Your task to perform on an android device: Search for lg ultragear on amazon, select the first entry, and add it to the cart. Image 0: 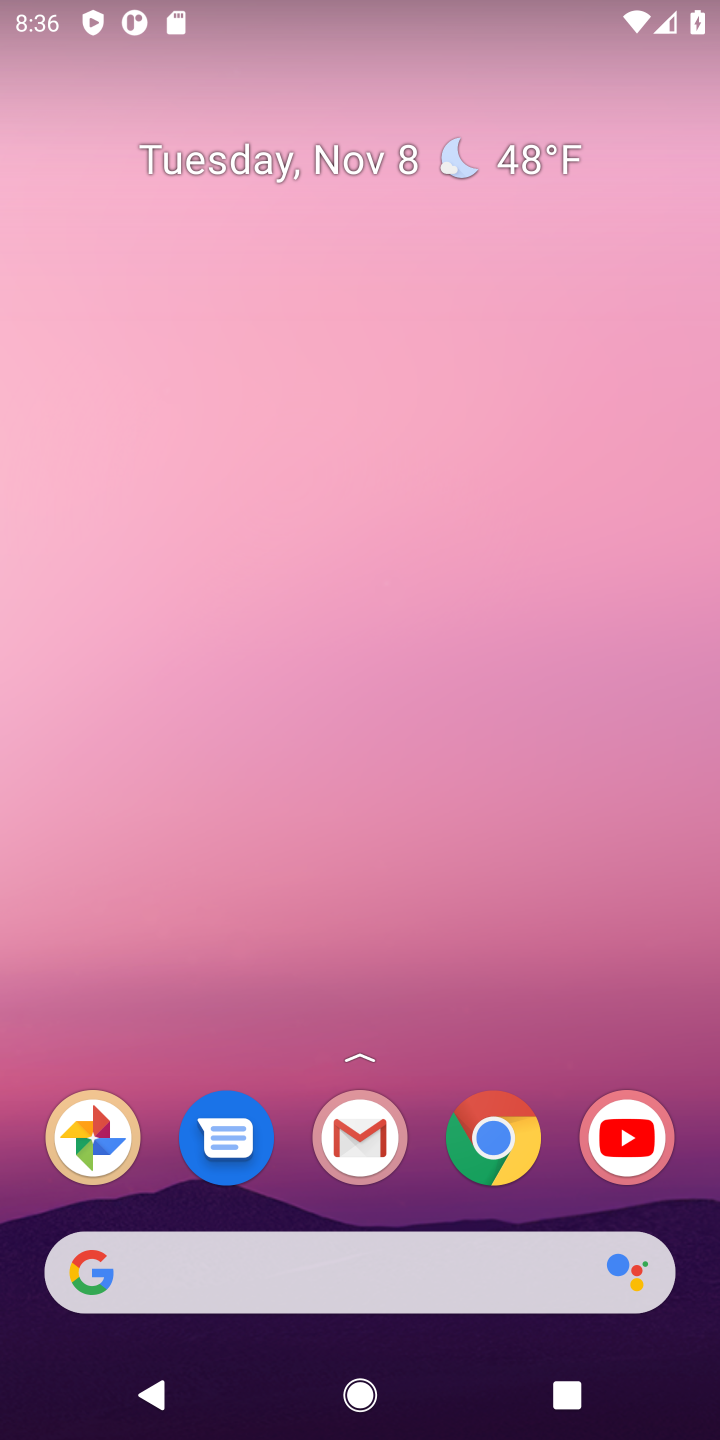
Step 0: press home button
Your task to perform on an android device: Search for lg ultragear on amazon, select the first entry, and add it to the cart. Image 1: 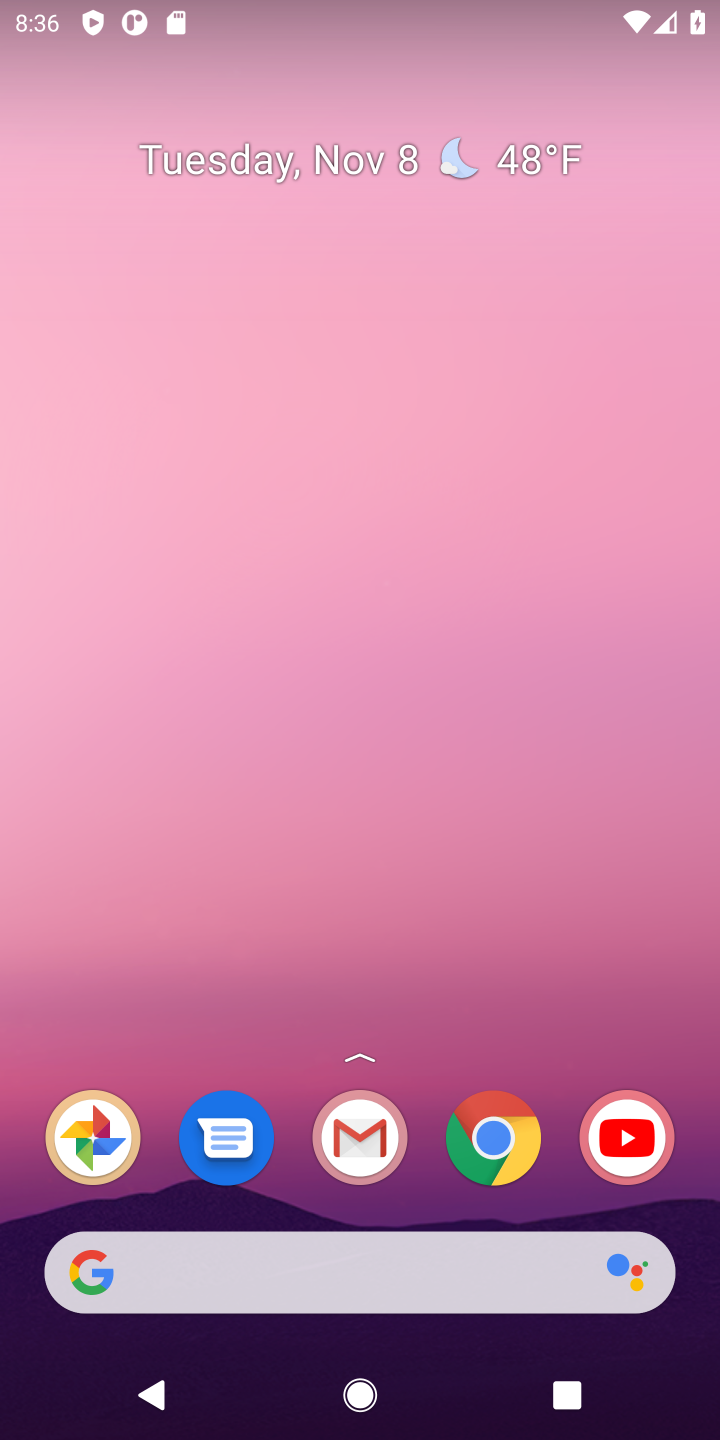
Step 1: click (492, 1126)
Your task to perform on an android device: Search for lg ultragear on amazon, select the first entry, and add it to the cart. Image 2: 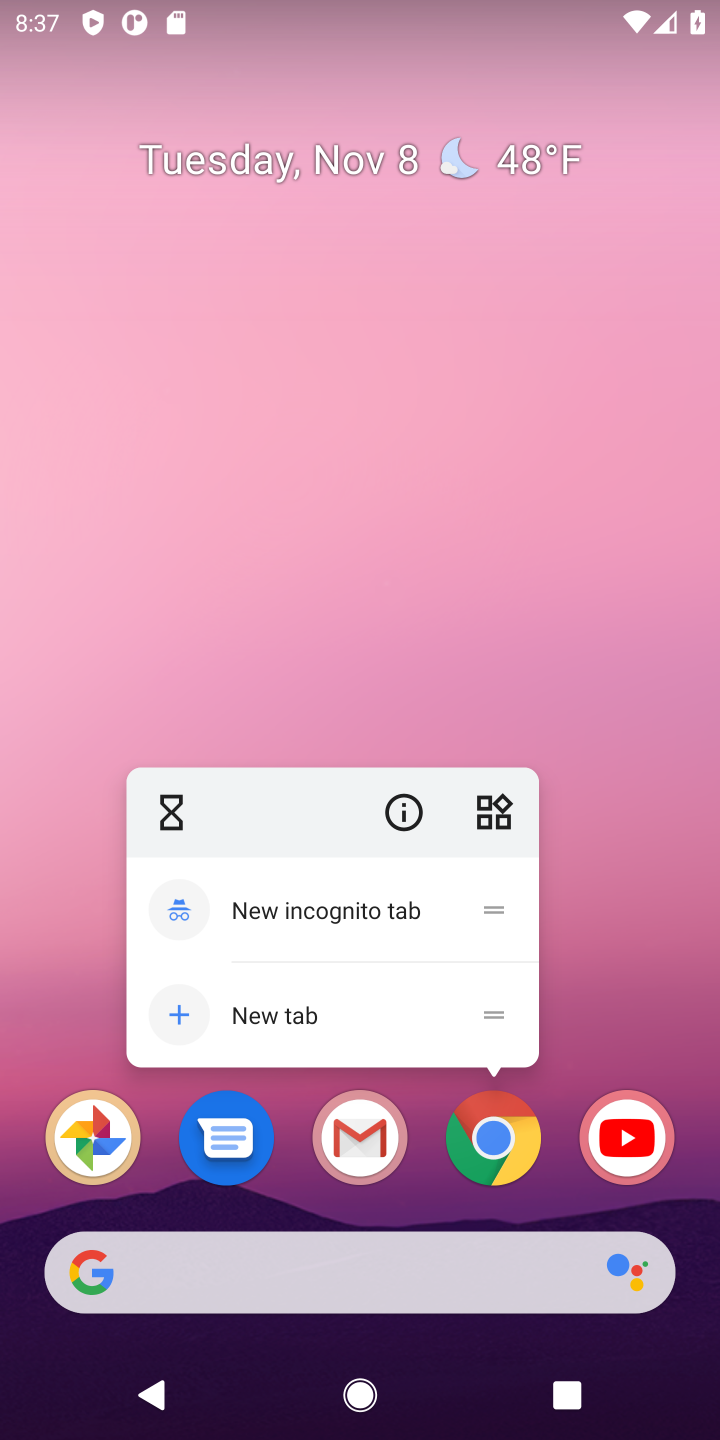
Step 2: click (492, 1126)
Your task to perform on an android device: Search for lg ultragear on amazon, select the first entry, and add it to the cart. Image 3: 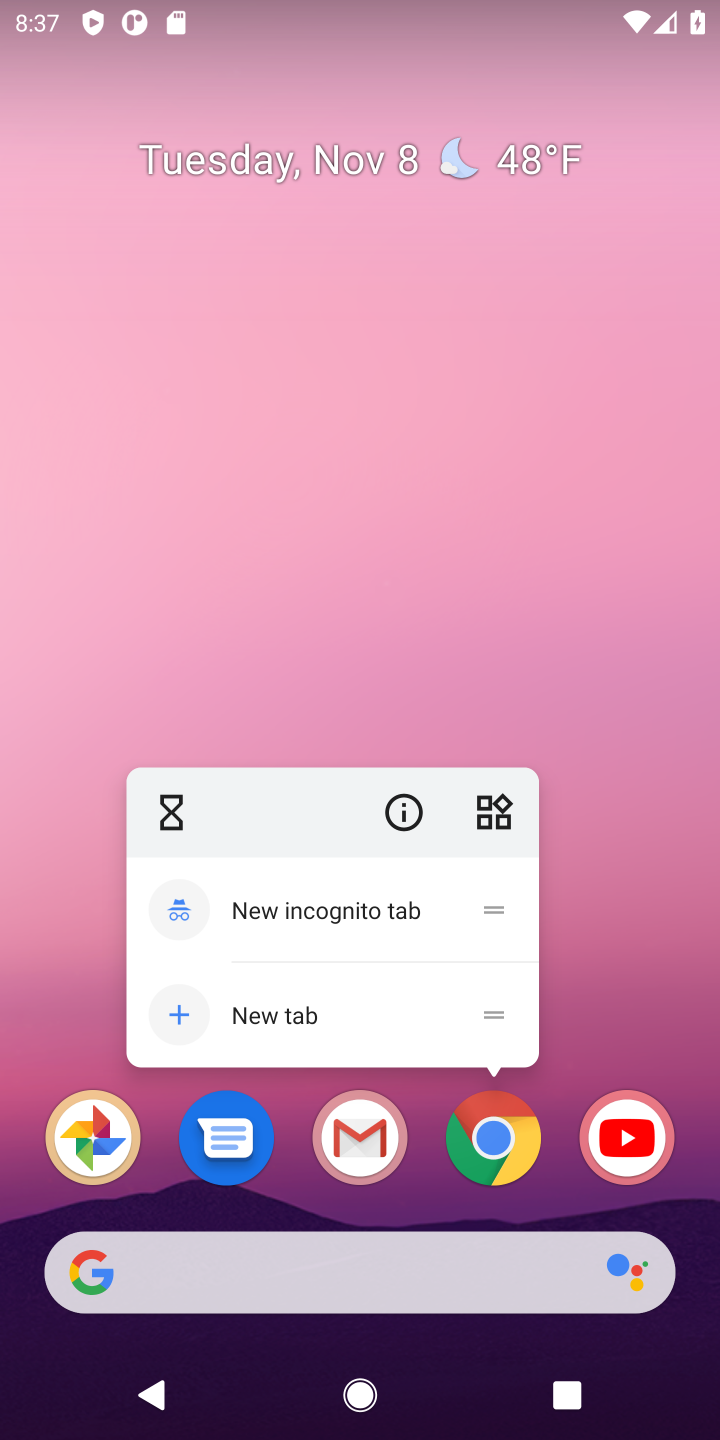
Step 3: click (492, 1120)
Your task to perform on an android device: Search for lg ultragear on amazon, select the first entry, and add it to the cart. Image 4: 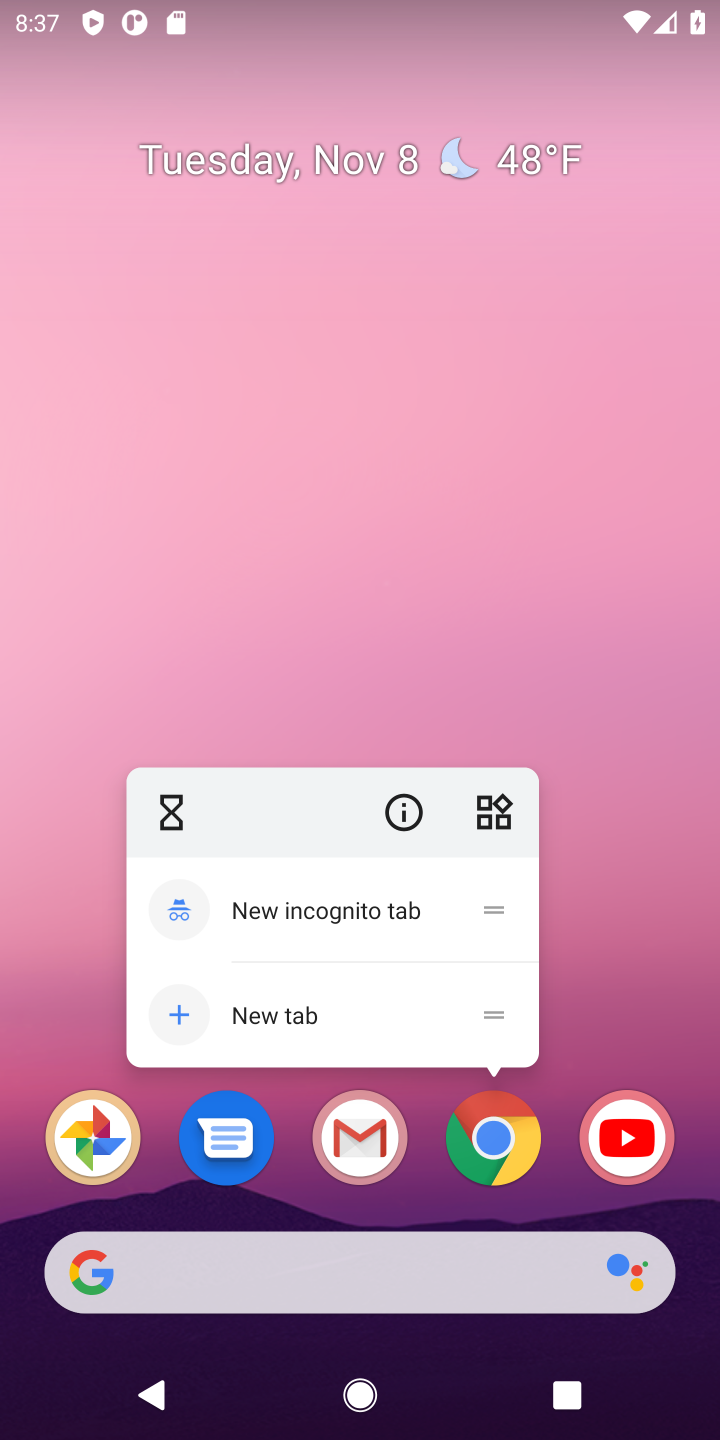
Step 4: click (490, 1133)
Your task to perform on an android device: Search for lg ultragear on amazon, select the first entry, and add it to the cart. Image 5: 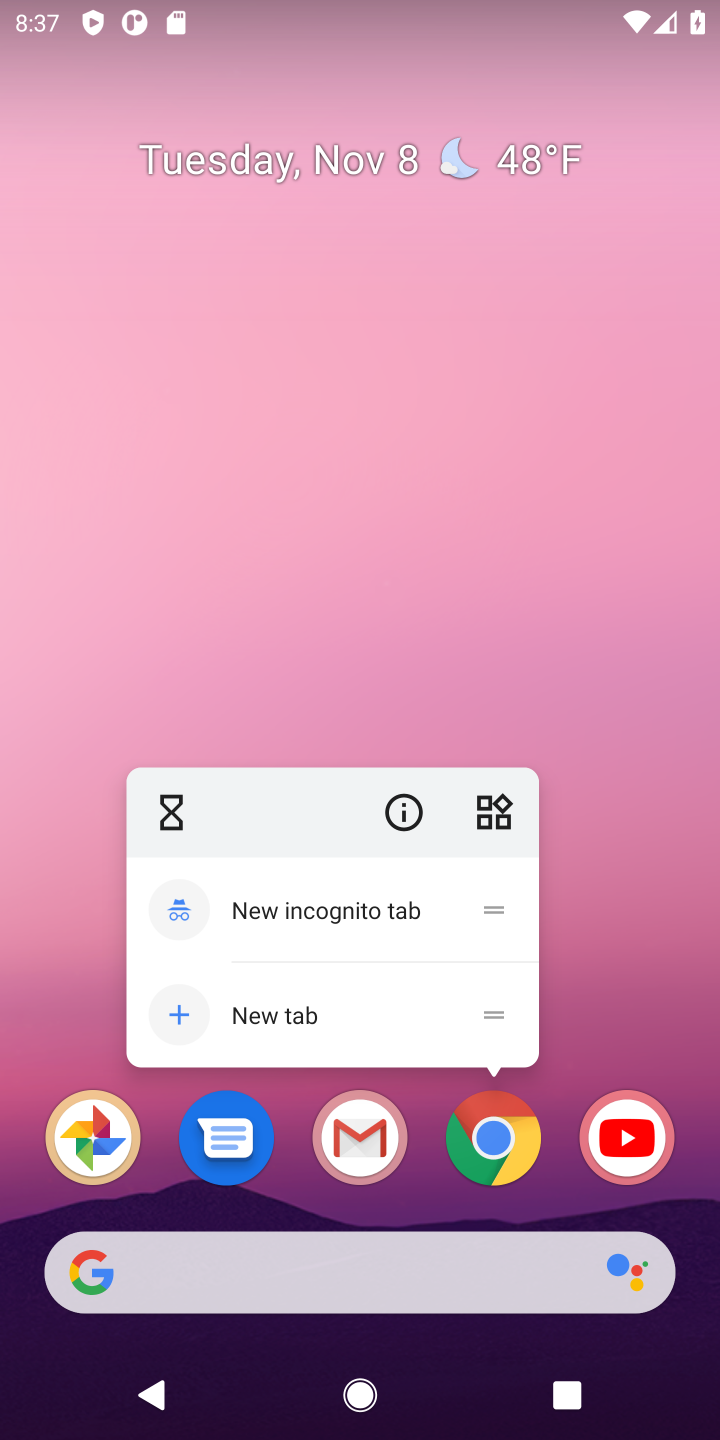
Step 5: click (490, 1138)
Your task to perform on an android device: Search for lg ultragear on amazon, select the first entry, and add it to the cart. Image 6: 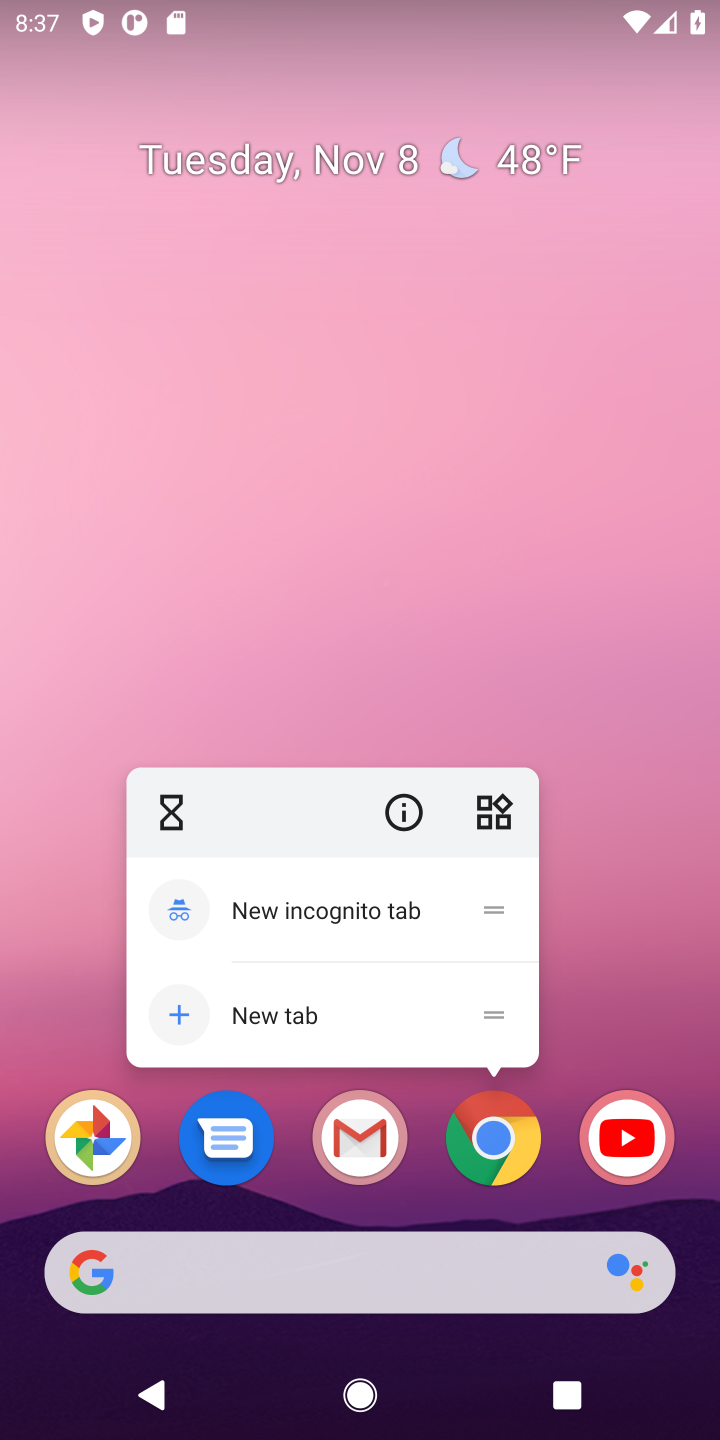
Step 6: click (490, 1148)
Your task to perform on an android device: Search for lg ultragear on amazon, select the first entry, and add it to the cart. Image 7: 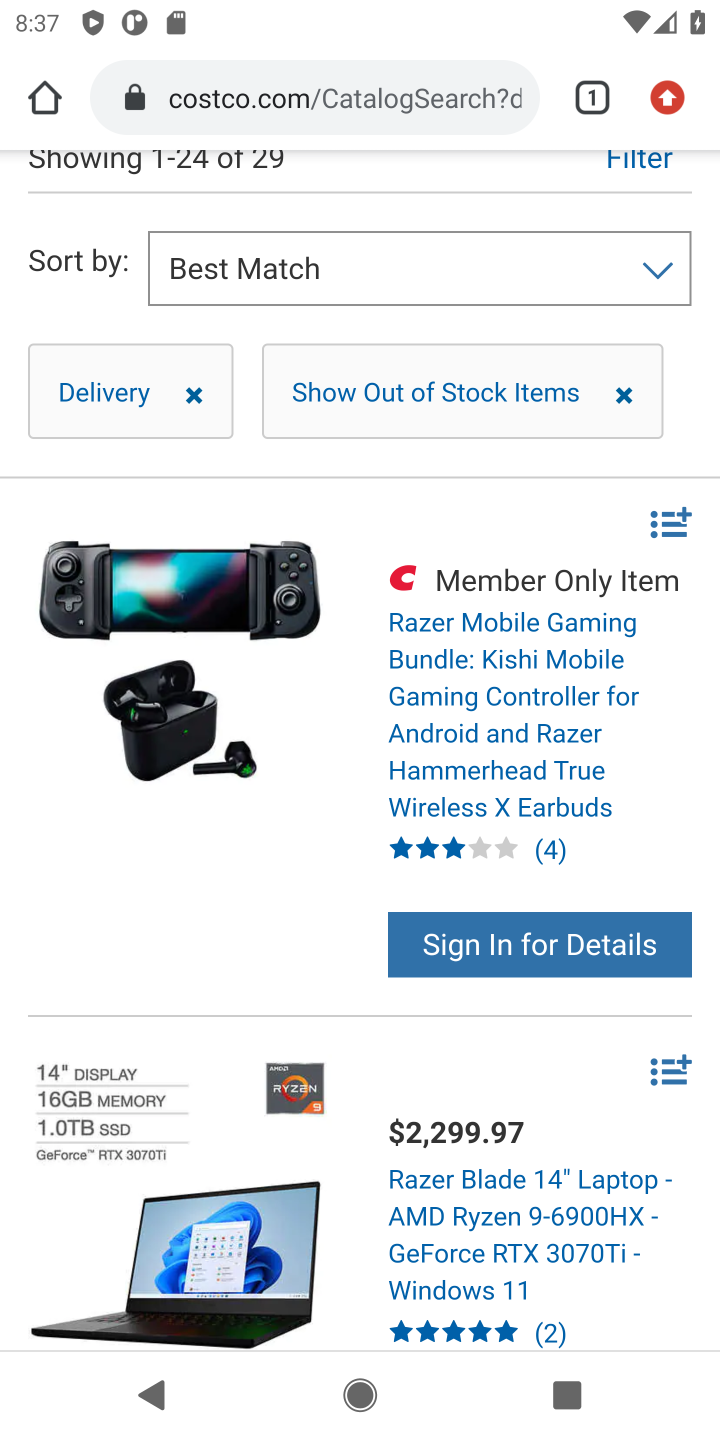
Step 7: click (353, 85)
Your task to perform on an android device: Search for lg ultragear on amazon, select the first entry, and add it to the cart. Image 8: 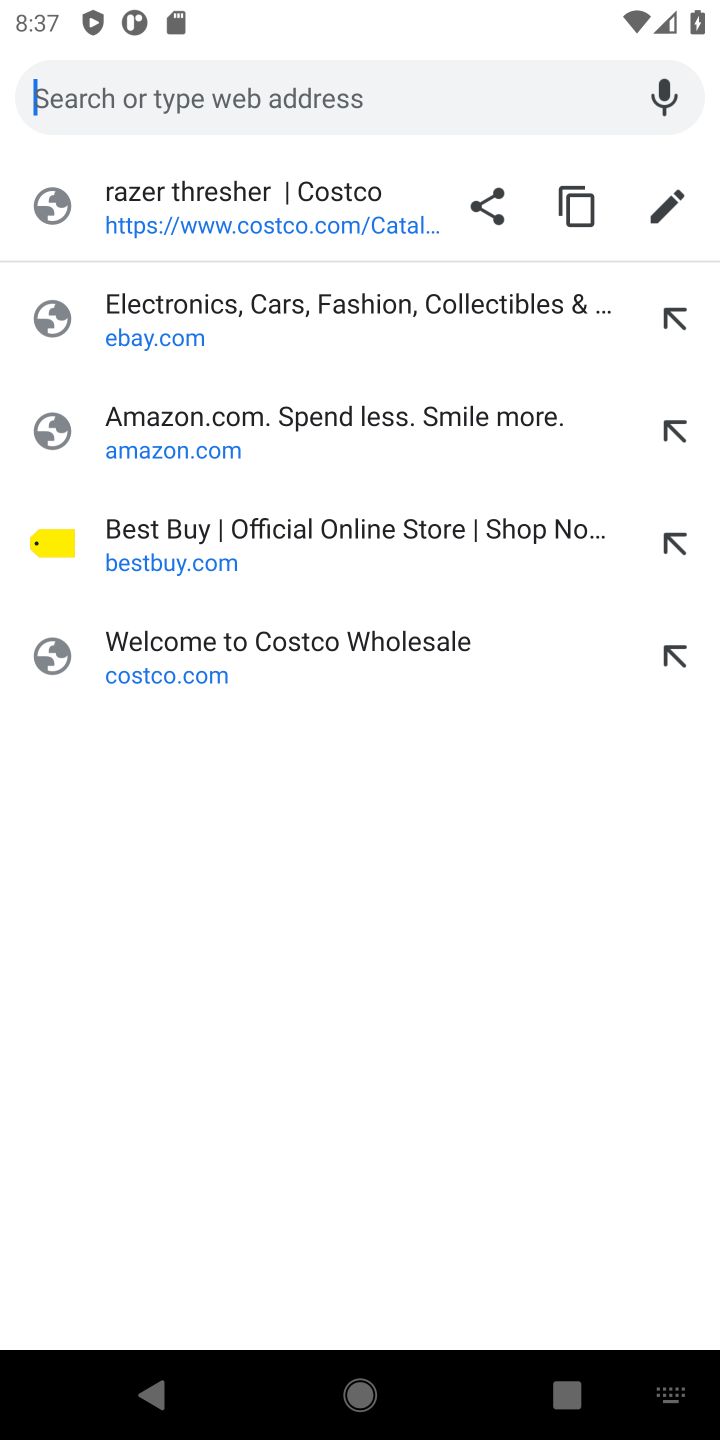
Step 8: click (153, 448)
Your task to perform on an android device: Search for lg ultragear on amazon, select the first entry, and add it to the cart. Image 9: 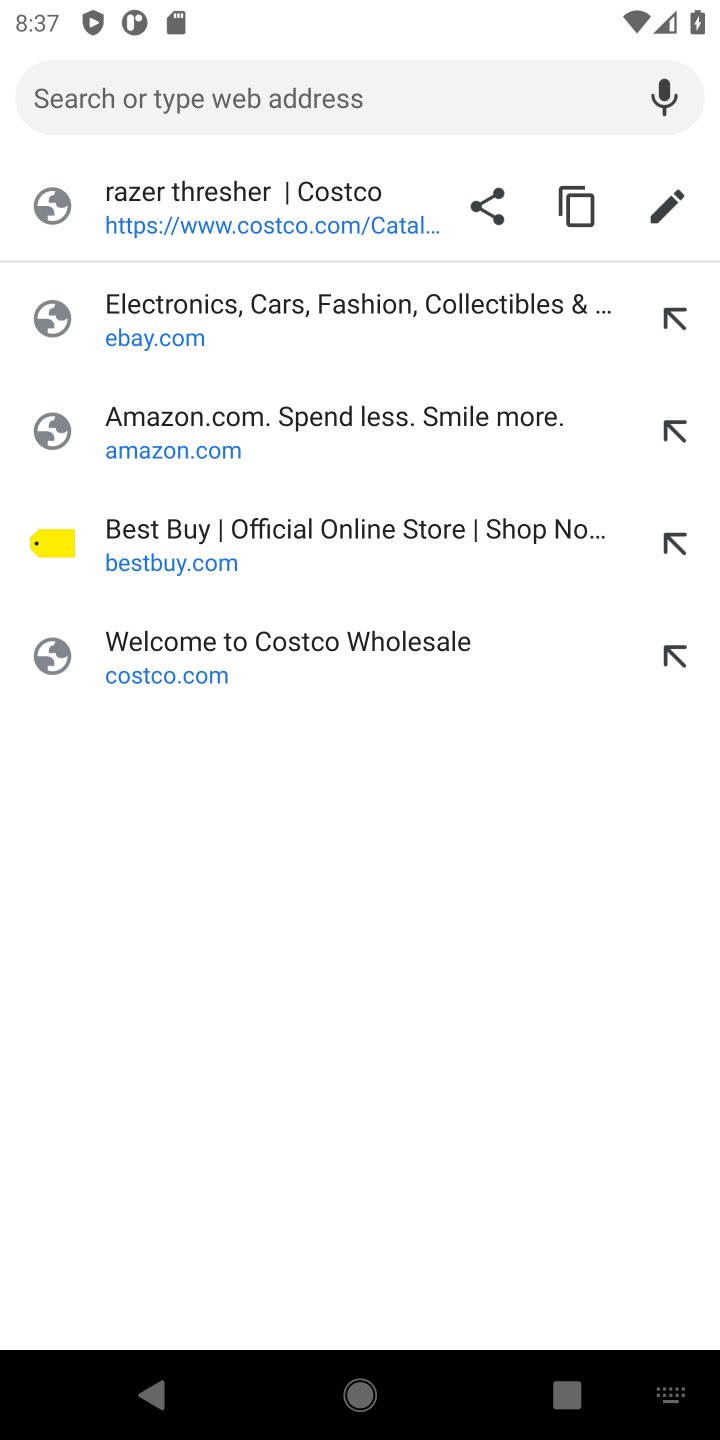
Step 9: click (157, 437)
Your task to perform on an android device: Search for lg ultragear on amazon, select the first entry, and add it to the cart. Image 10: 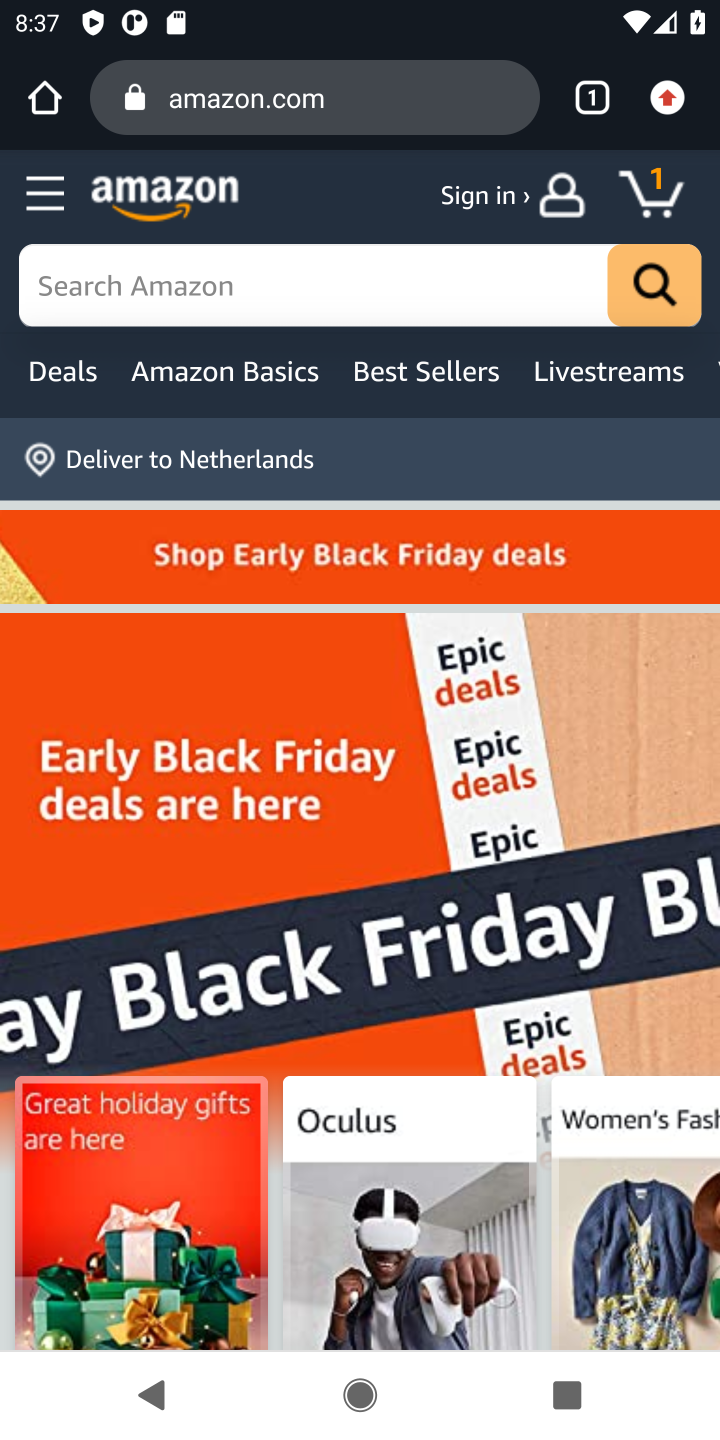
Step 10: click (201, 284)
Your task to perform on an android device: Search for lg ultragear on amazon, select the first entry, and add it to the cart. Image 11: 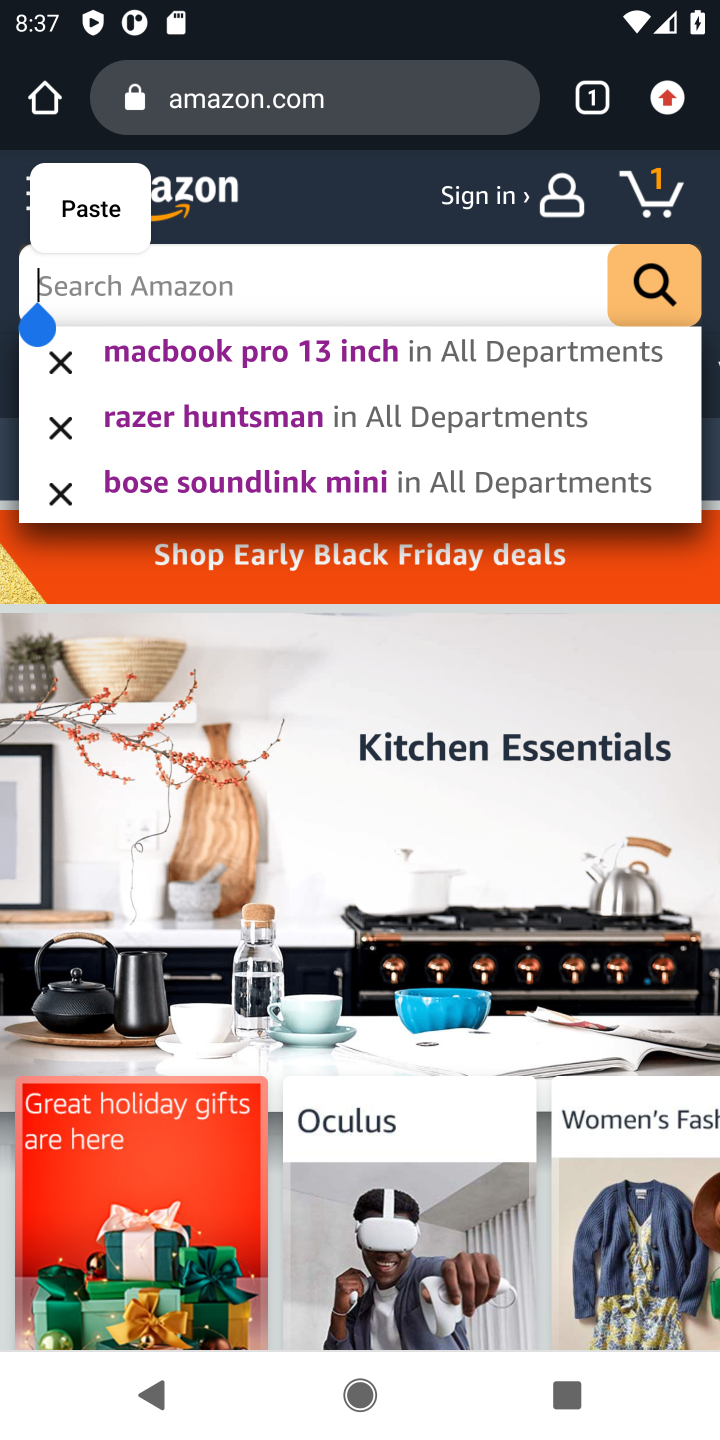
Step 11: type "lg ultragear"
Your task to perform on an android device: Search for lg ultragear on amazon, select the first entry, and add it to the cart. Image 12: 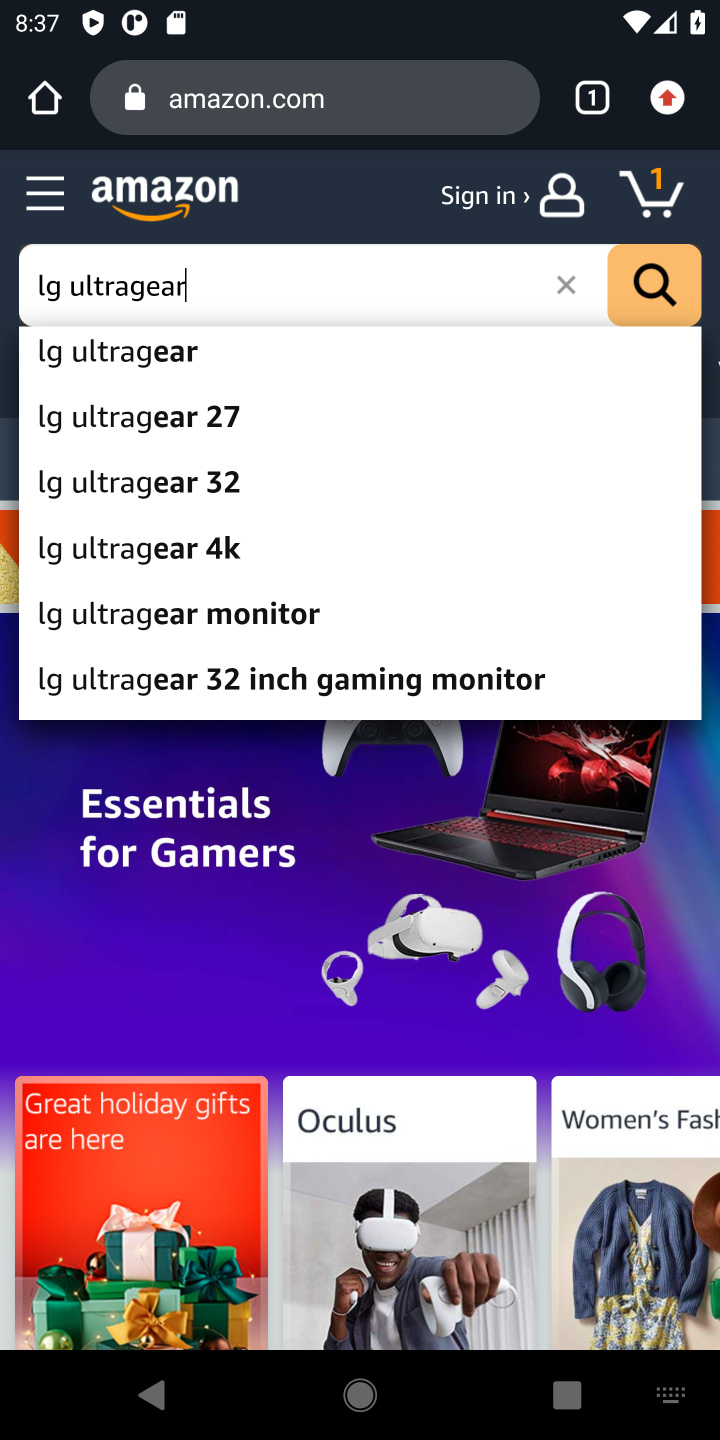
Step 12: press enter
Your task to perform on an android device: Search for lg ultragear on amazon, select the first entry, and add it to the cart. Image 13: 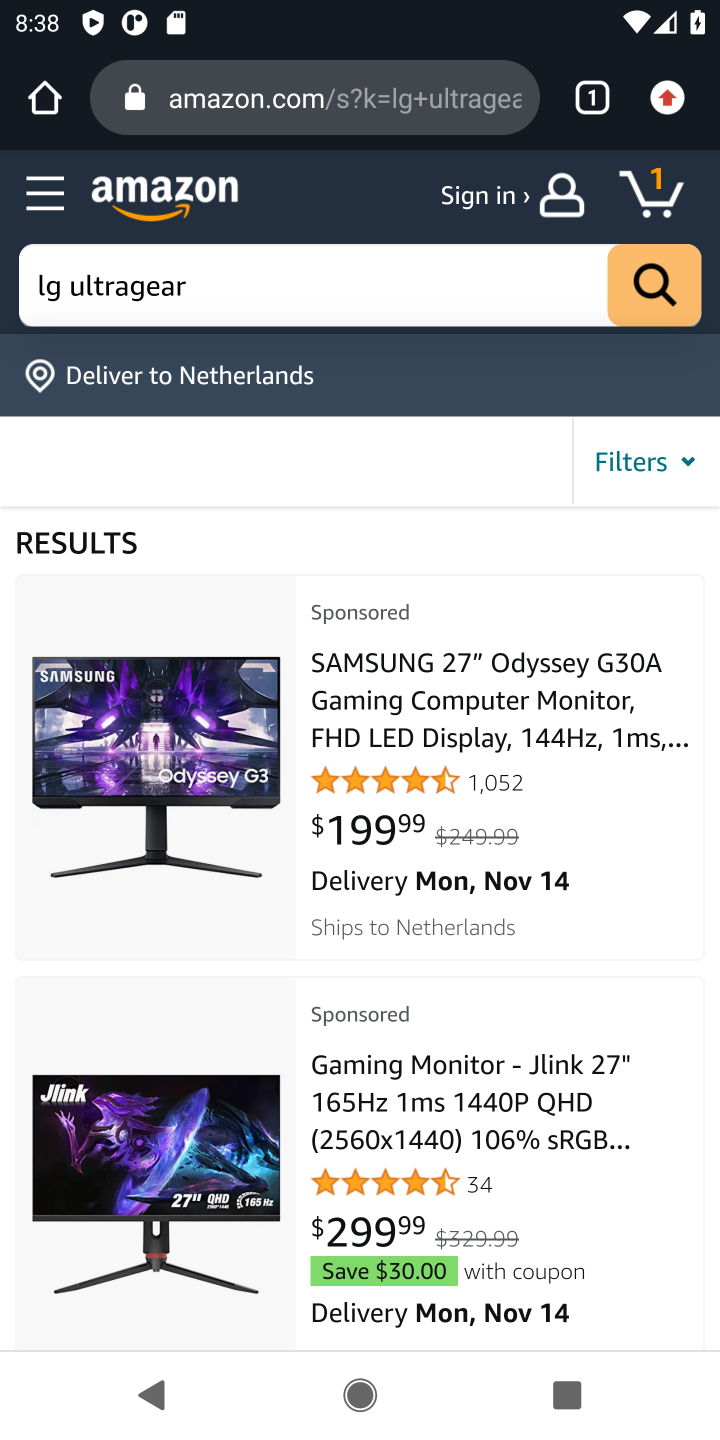
Step 13: click (432, 710)
Your task to perform on an android device: Search for lg ultragear on amazon, select the first entry, and add it to the cart. Image 14: 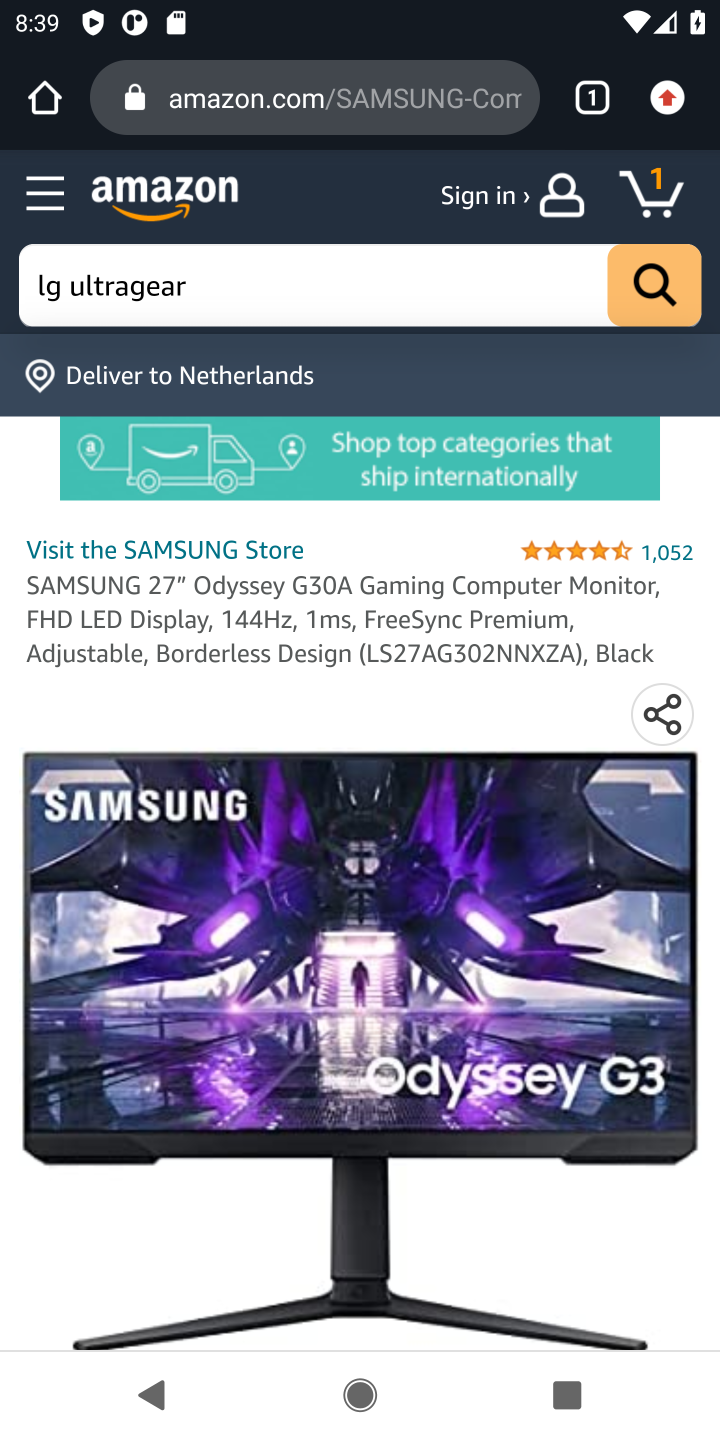
Step 14: task complete